Your task to perform on an android device: Do I have any events tomorrow? Image 0: 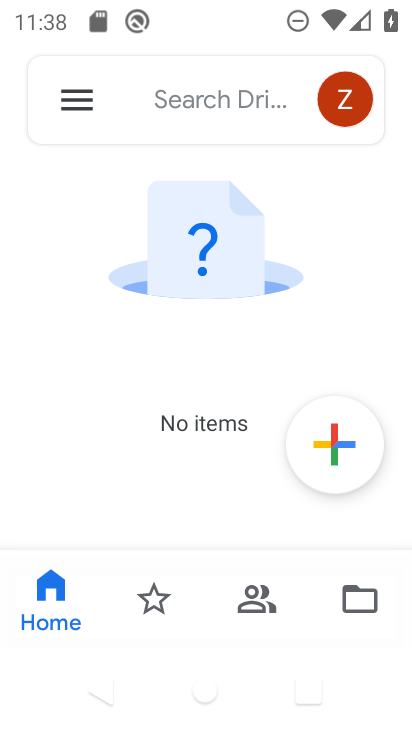
Step 0: press home button
Your task to perform on an android device: Do I have any events tomorrow? Image 1: 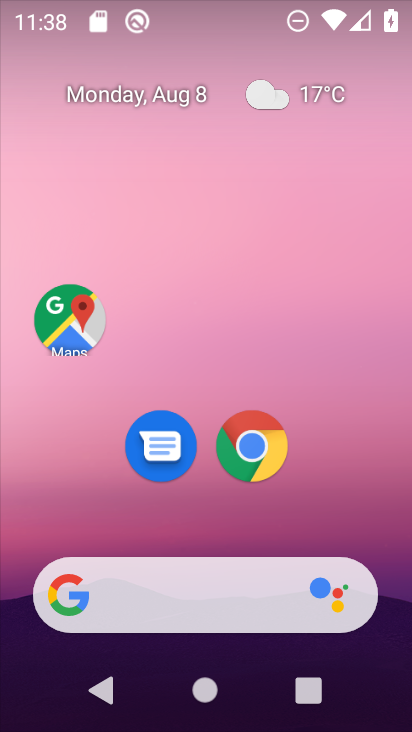
Step 1: drag from (400, 631) to (372, 107)
Your task to perform on an android device: Do I have any events tomorrow? Image 2: 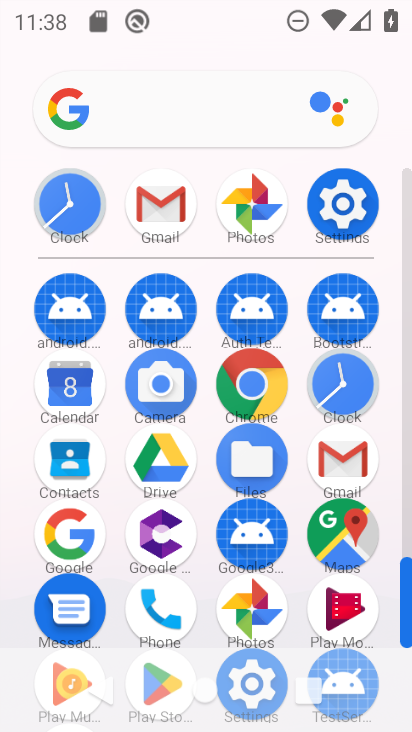
Step 2: click (406, 531)
Your task to perform on an android device: Do I have any events tomorrow? Image 3: 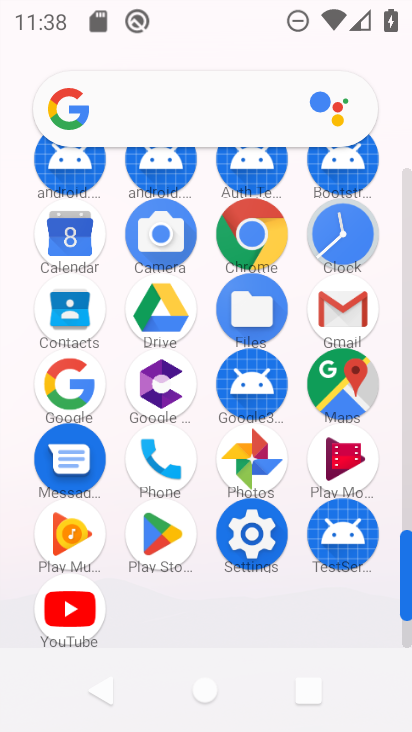
Step 3: click (69, 233)
Your task to perform on an android device: Do I have any events tomorrow? Image 4: 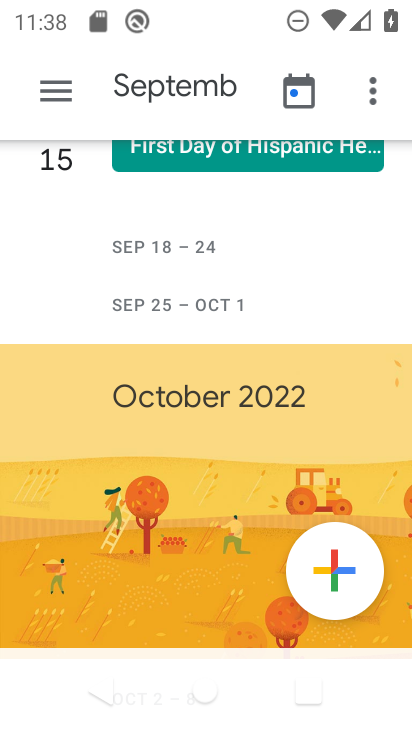
Step 4: click (54, 91)
Your task to perform on an android device: Do I have any events tomorrow? Image 5: 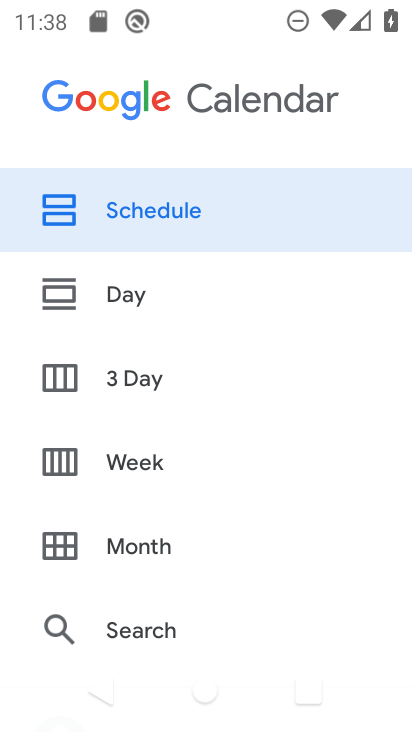
Step 5: click (114, 296)
Your task to perform on an android device: Do I have any events tomorrow? Image 6: 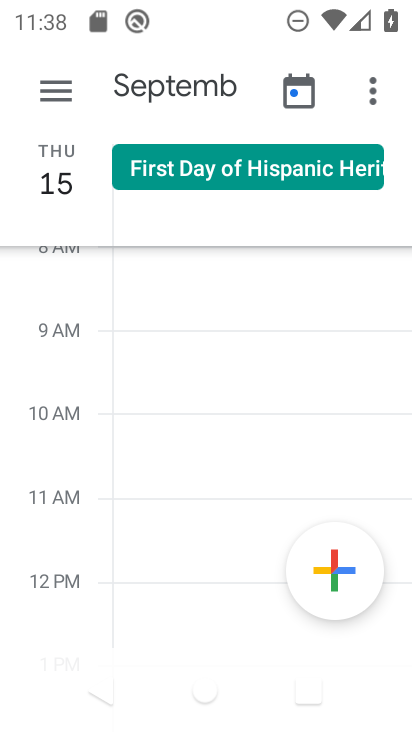
Step 6: click (216, 97)
Your task to perform on an android device: Do I have any events tomorrow? Image 7: 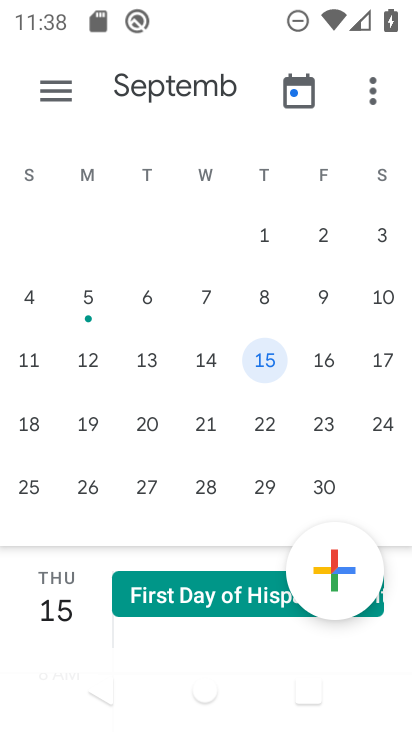
Step 7: drag from (34, 295) to (0, 344)
Your task to perform on an android device: Do I have any events tomorrow? Image 8: 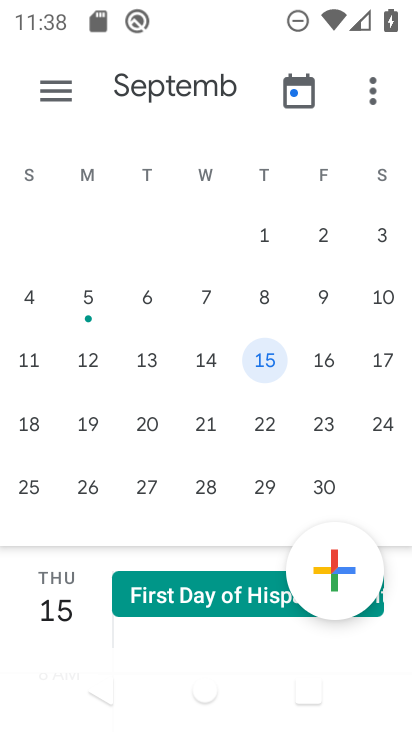
Step 8: drag from (79, 299) to (366, 303)
Your task to perform on an android device: Do I have any events tomorrow? Image 9: 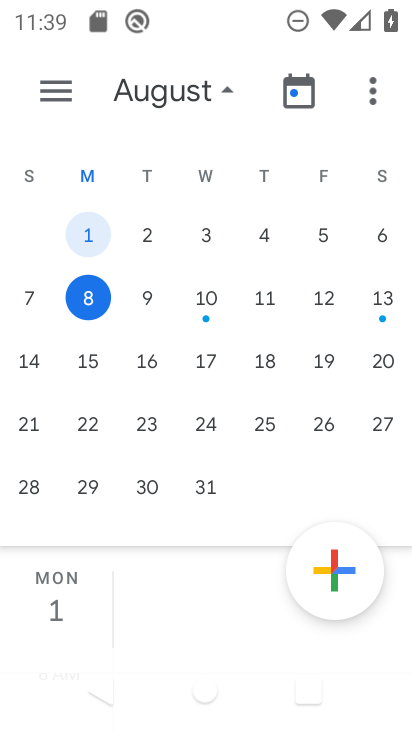
Step 9: click (146, 301)
Your task to perform on an android device: Do I have any events tomorrow? Image 10: 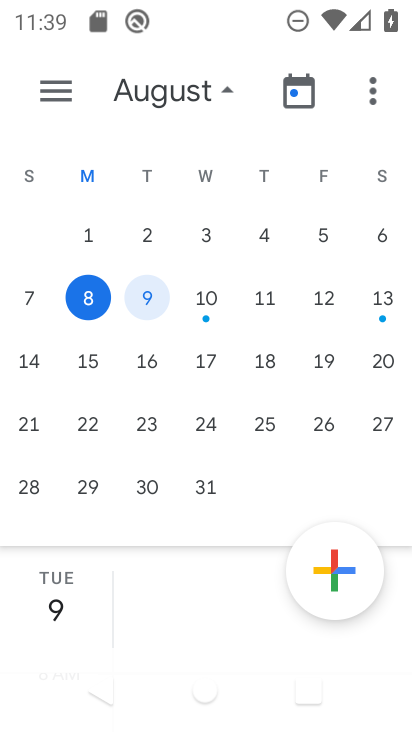
Step 10: task complete